Your task to perform on an android device: turn on showing notifications on the lock screen Image 0: 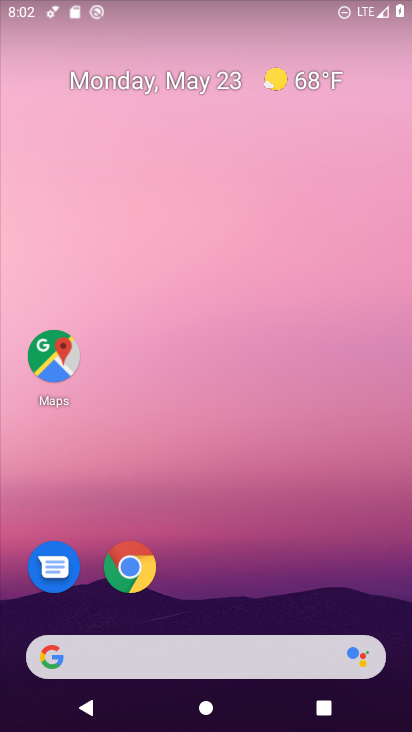
Step 0: drag from (179, 619) to (238, 207)
Your task to perform on an android device: turn on showing notifications on the lock screen Image 1: 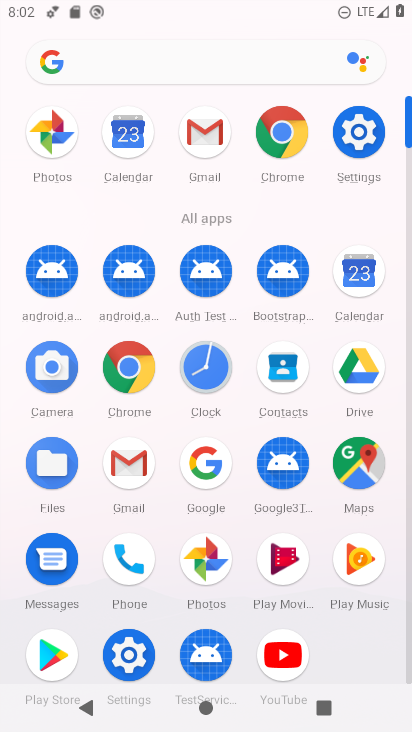
Step 1: click (370, 138)
Your task to perform on an android device: turn on showing notifications on the lock screen Image 2: 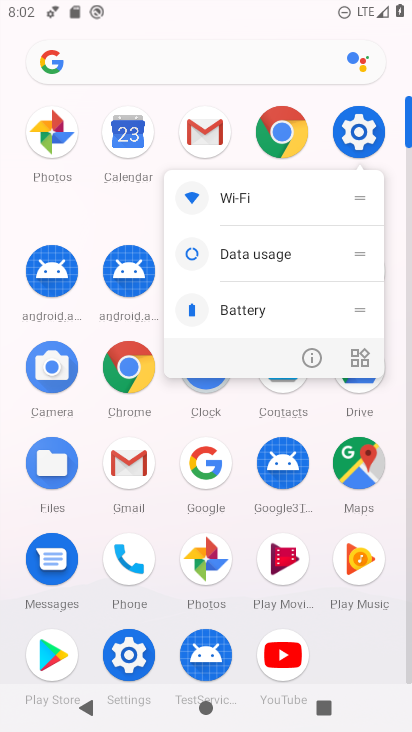
Step 2: click (318, 359)
Your task to perform on an android device: turn on showing notifications on the lock screen Image 3: 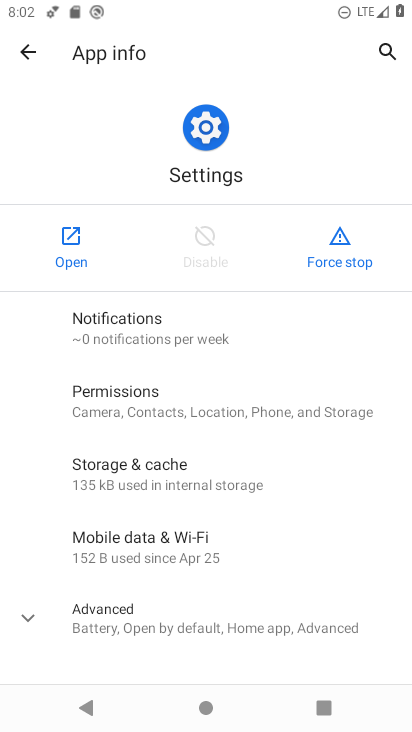
Step 3: click (62, 241)
Your task to perform on an android device: turn on showing notifications on the lock screen Image 4: 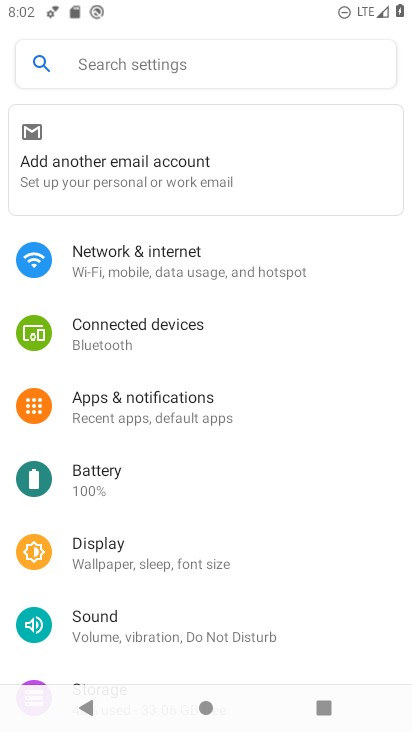
Step 4: click (182, 407)
Your task to perform on an android device: turn on showing notifications on the lock screen Image 5: 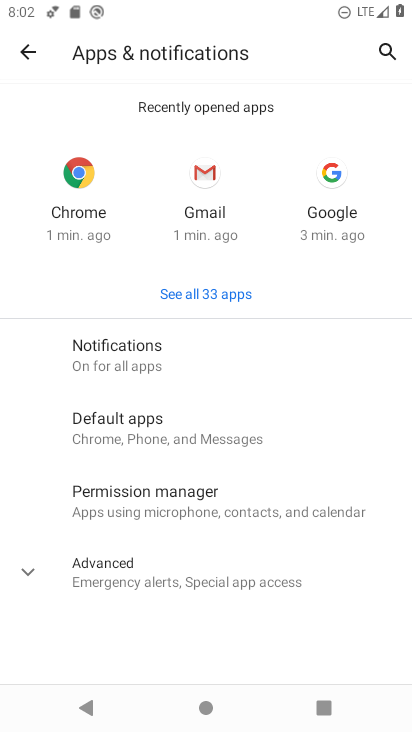
Step 5: click (145, 370)
Your task to perform on an android device: turn on showing notifications on the lock screen Image 6: 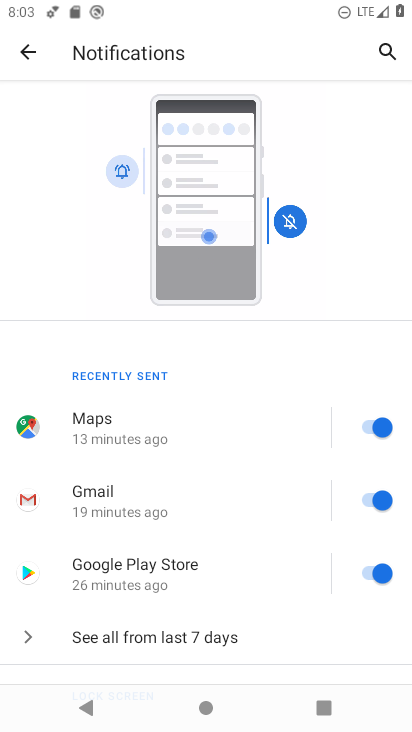
Step 6: drag from (238, 631) to (339, 328)
Your task to perform on an android device: turn on showing notifications on the lock screen Image 7: 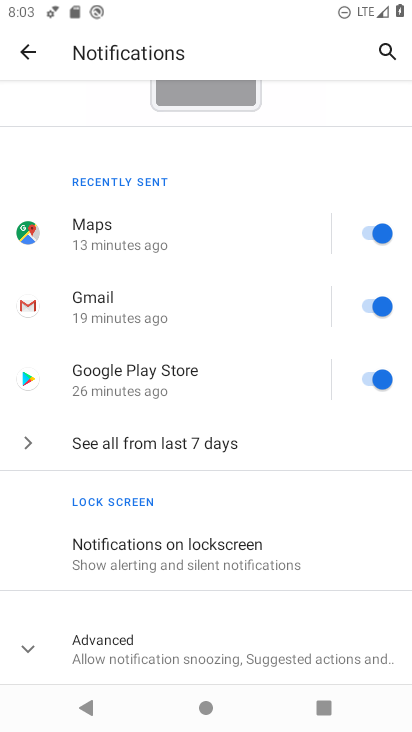
Step 7: click (266, 556)
Your task to perform on an android device: turn on showing notifications on the lock screen Image 8: 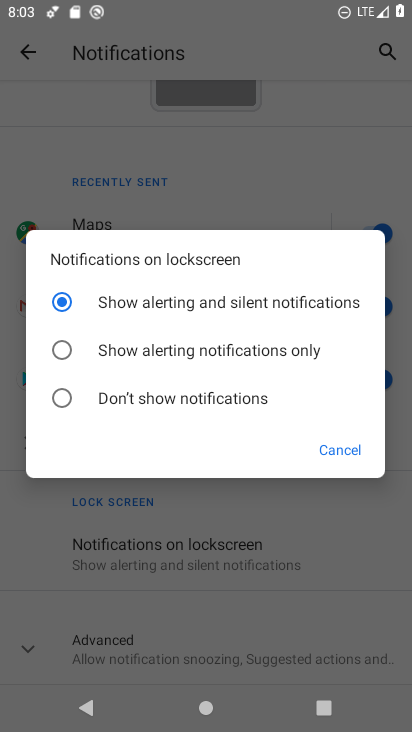
Step 8: click (149, 352)
Your task to perform on an android device: turn on showing notifications on the lock screen Image 9: 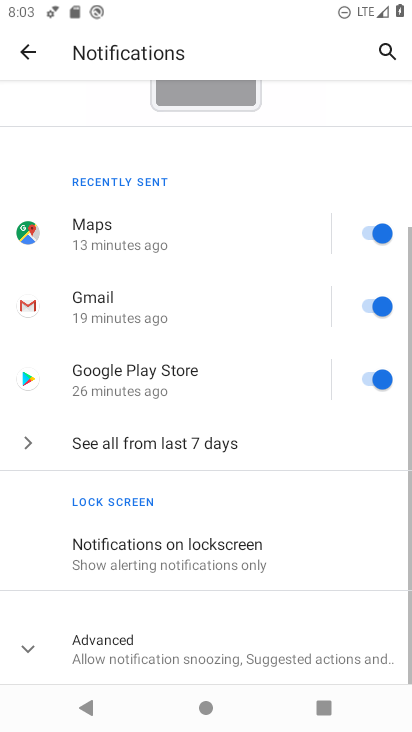
Step 9: task complete